Your task to perform on an android device: Go to Google maps Image 0: 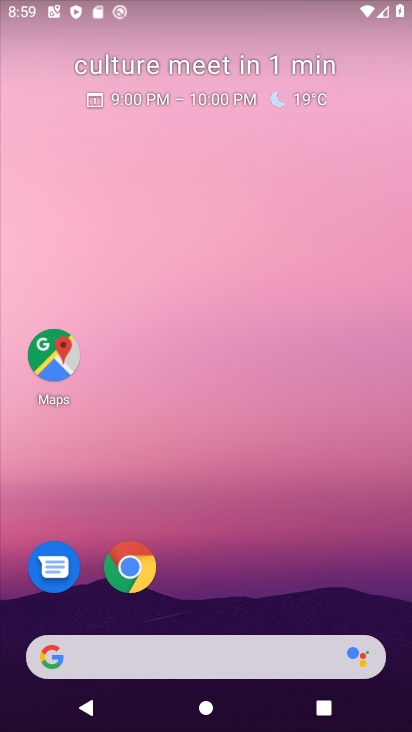
Step 0: click (38, 360)
Your task to perform on an android device: Go to Google maps Image 1: 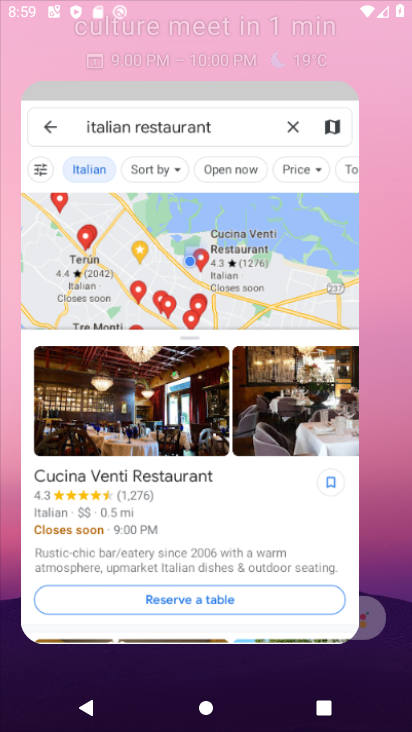
Step 1: click (63, 369)
Your task to perform on an android device: Go to Google maps Image 2: 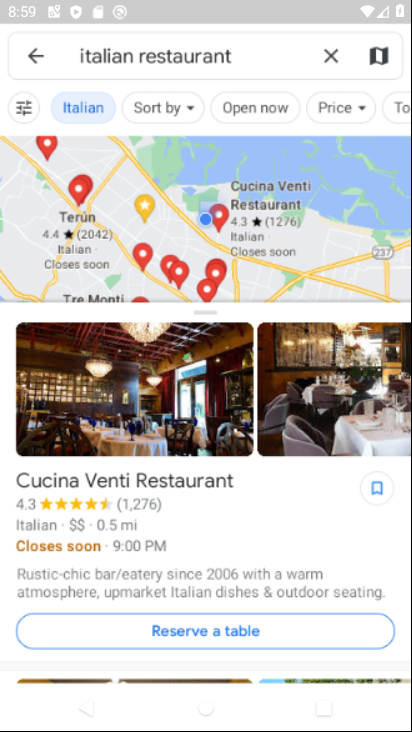
Step 2: click (49, 369)
Your task to perform on an android device: Go to Google maps Image 3: 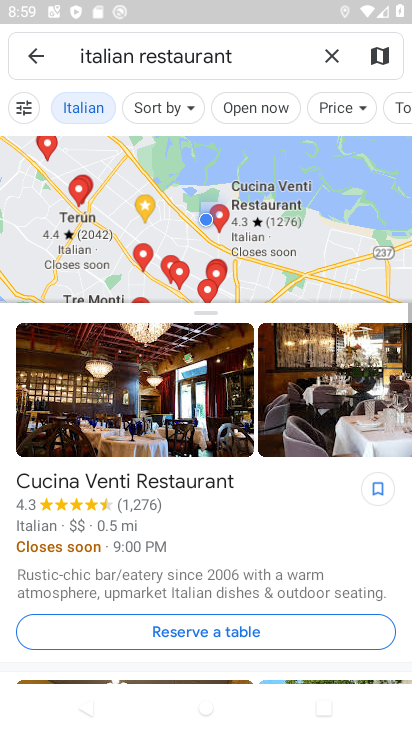
Step 3: task complete